Your task to perform on an android device: Open Maps and search for coffee Image 0: 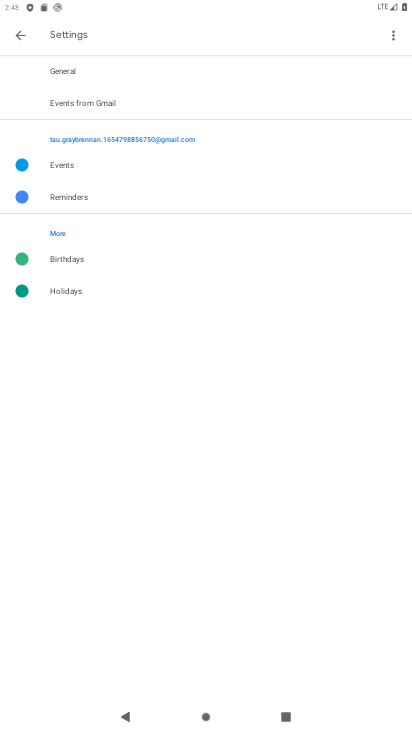
Step 0: press home button
Your task to perform on an android device: Open Maps and search for coffee Image 1: 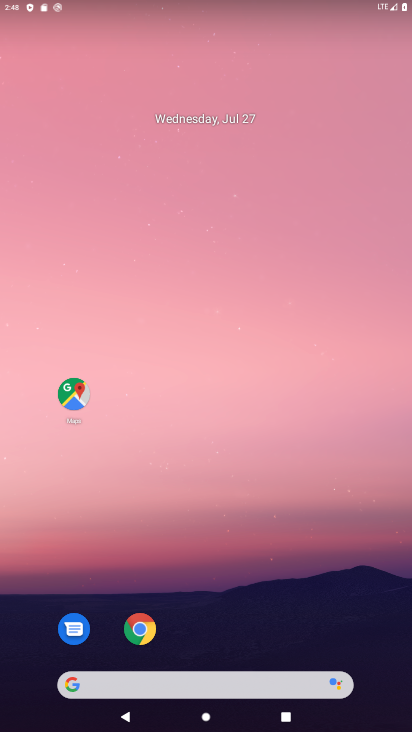
Step 1: click (78, 401)
Your task to perform on an android device: Open Maps and search for coffee Image 2: 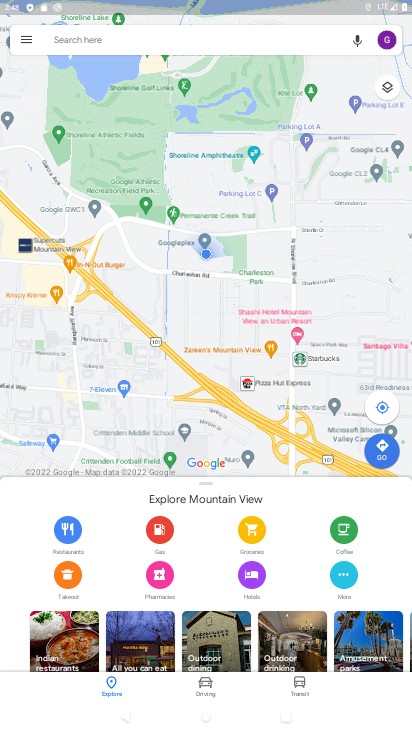
Step 2: click (144, 43)
Your task to perform on an android device: Open Maps and search for coffee Image 3: 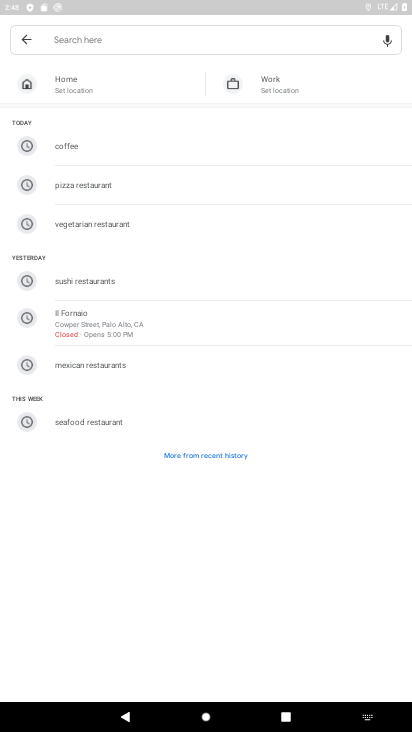
Step 3: click (128, 153)
Your task to perform on an android device: Open Maps and search for coffee Image 4: 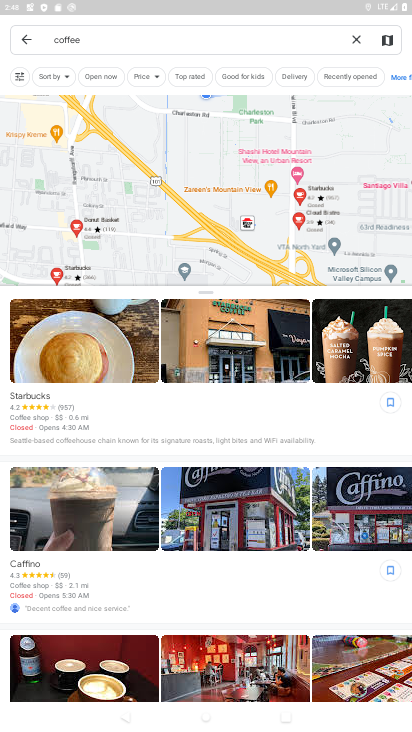
Step 4: task complete